Your task to perform on an android device: turn on translation in the chrome app Image 0: 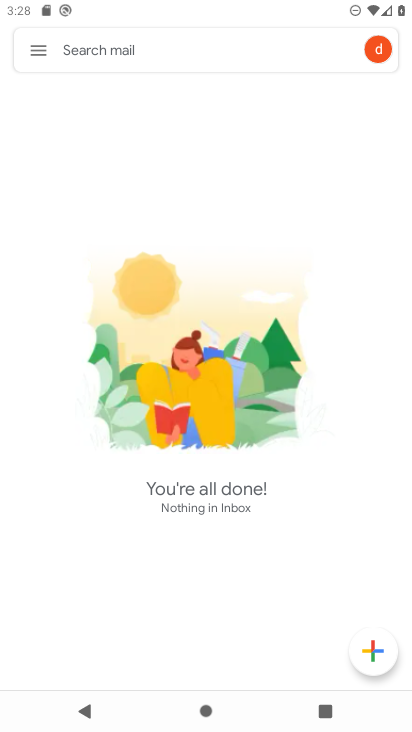
Step 0: press home button
Your task to perform on an android device: turn on translation in the chrome app Image 1: 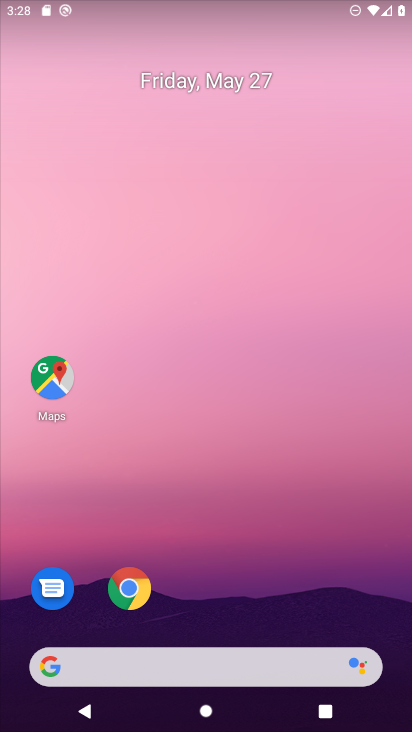
Step 1: click (143, 585)
Your task to perform on an android device: turn on translation in the chrome app Image 2: 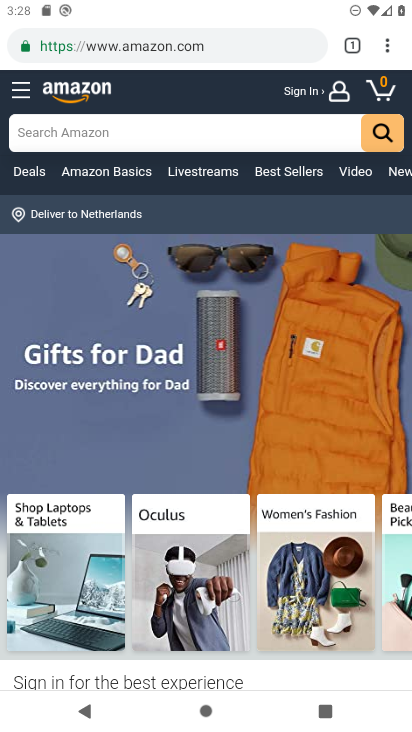
Step 2: click (390, 40)
Your task to perform on an android device: turn on translation in the chrome app Image 3: 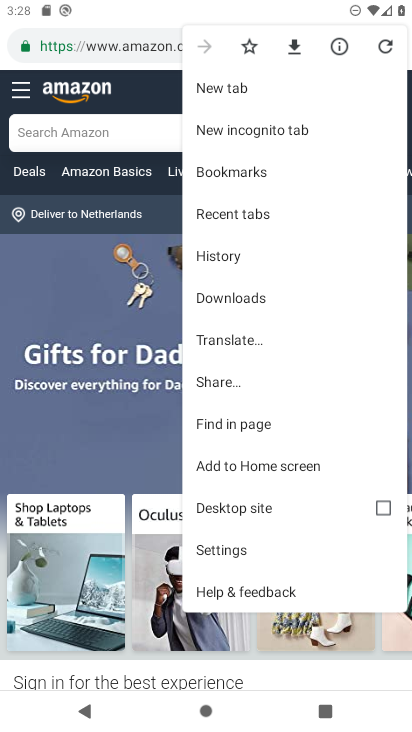
Step 3: click (250, 547)
Your task to perform on an android device: turn on translation in the chrome app Image 4: 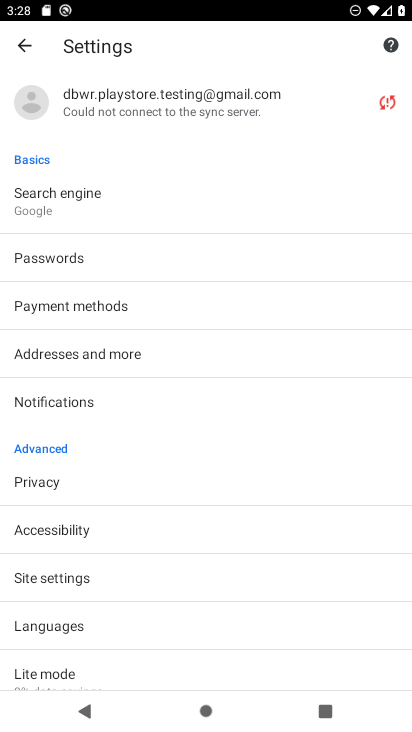
Step 4: click (49, 616)
Your task to perform on an android device: turn on translation in the chrome app Image 5: 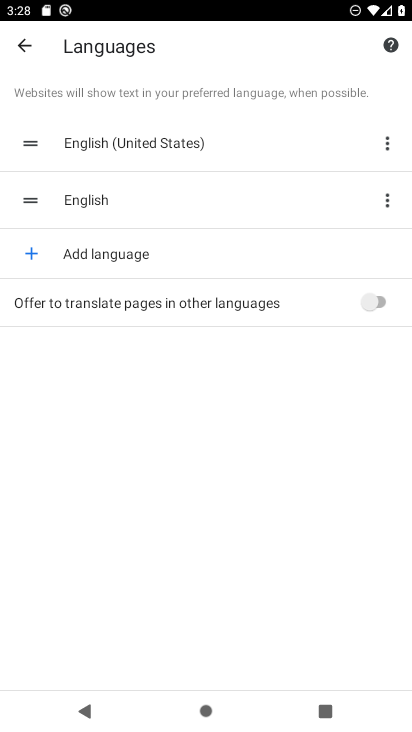
Step 5: click (372, 292)
Your task to perform on an android device: turn on translation in the chrome app Image 6: 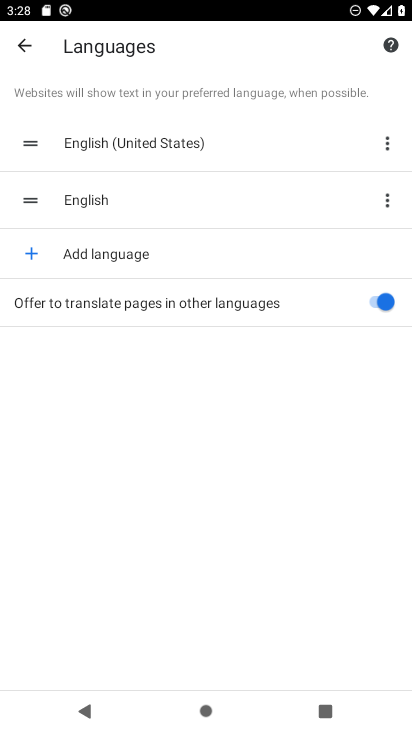
Step 6: task complete